Your task to perform on an android device: Go to location settings Image 0: 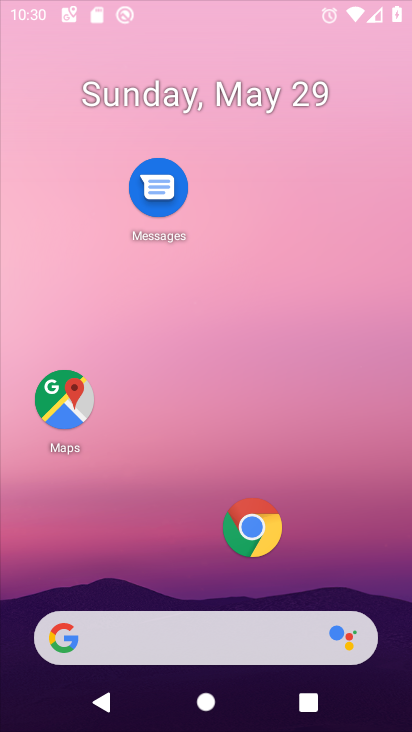
Step 0: press home button
Your task to perform on an android device: Go to location settings Image 1: 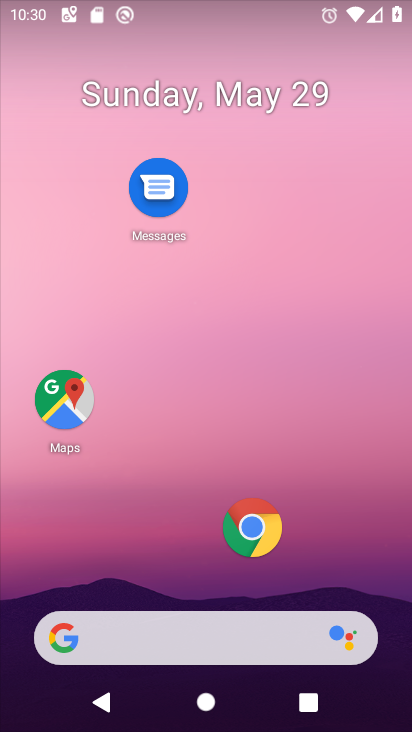
Step 1: press home button
Your task to perform on an android device: Go to location settings Image 2: 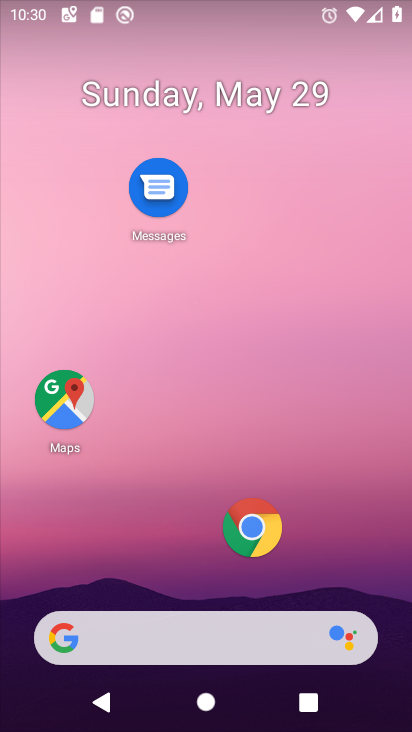
Step 2: drag from (204, 591) to (283, 13)
Your task to perform on an android device: Go to location settings Image 3: 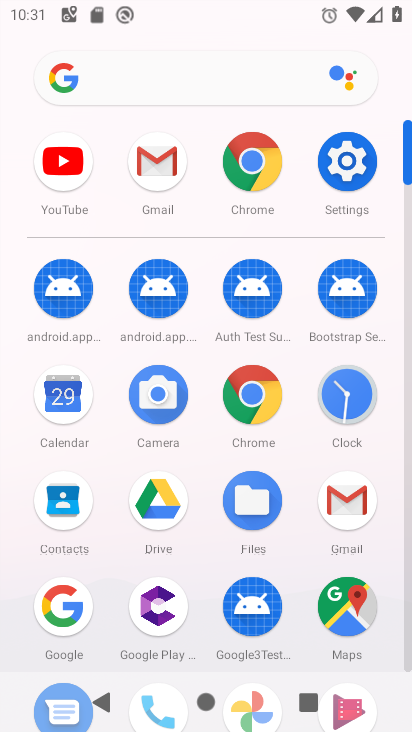
Step 3: drag from (201, 601) to (217, 88)
Your task to perform on an android device: Go to location settings Image 4: 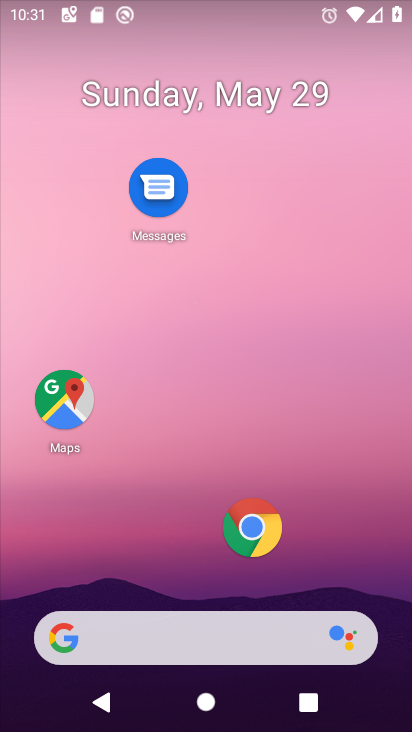
Step 4: click (231, 217)
Your task to perform on an android device: Go to location settings Image 5: 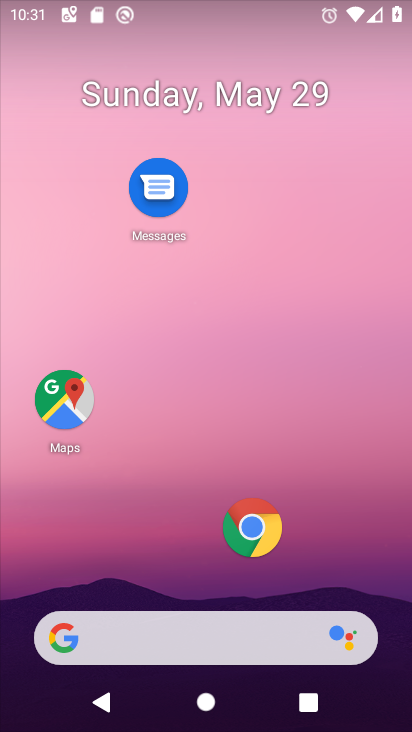
Step 5: drag from (339, 576) to (354, 144)
Your task to perform on an android device: Go to location settings Image 6: 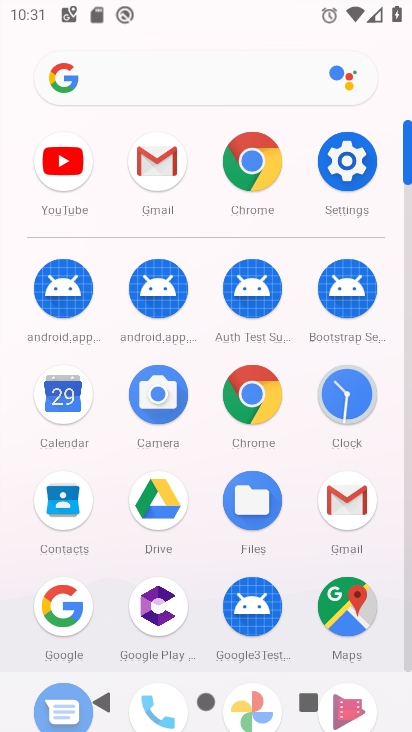
Step 6: click (351, 153)
Your task to perform on an android device: Go to location settings Image 7: 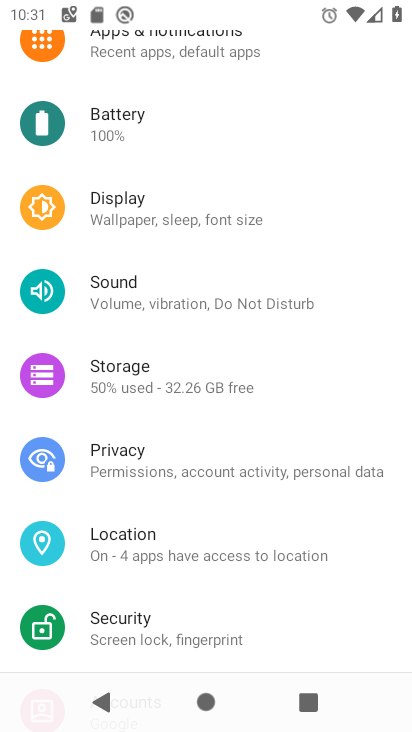
Step 7: click (179, 537)
Your task to perform on an android device: Go to location settings Image 8: 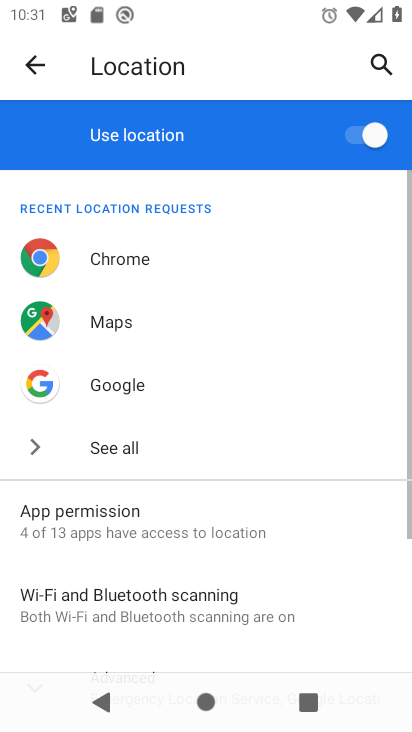
Step 8: drag from (155, 599) to (184, 151)
Your task to perform on an android device: Go to location settings Image 9: 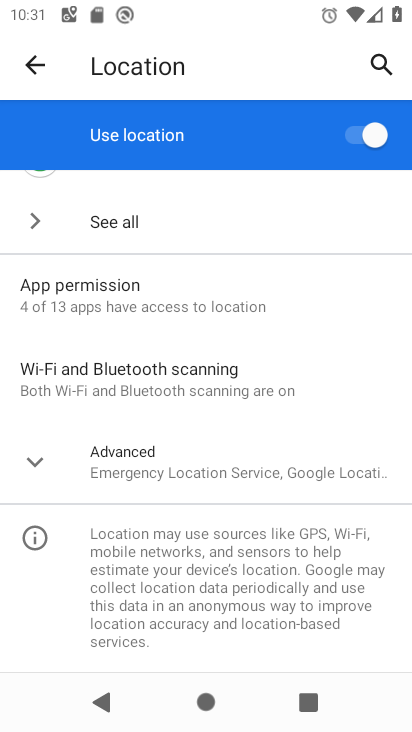
Step 9: click (30, 450)
Your task to perform on an android device: Go to location settings Image 10: 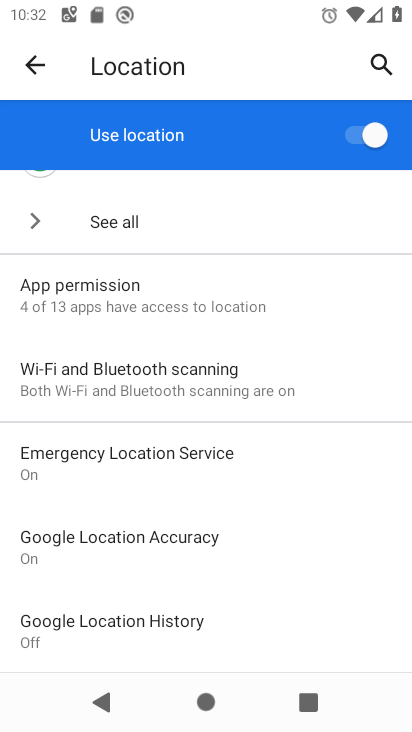
Step 10: task complete